Your task to perform on an android device: See recent photos Image 0: 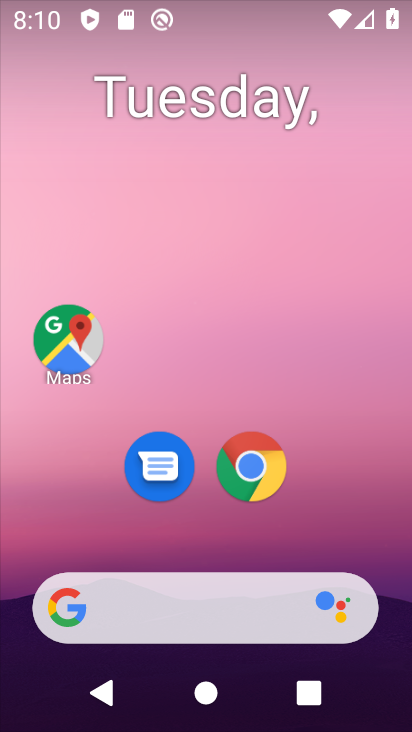
Step 0: drag from (216, 512) to (243, 8)
Your task to perform on an android device: See recent photos Image 1: 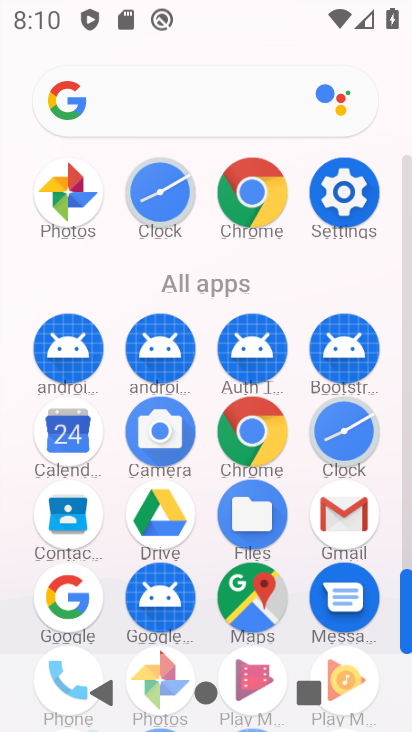
Step 1: drag from (200, 553) to (264, 121)
Your task to perform on an android device: See recent photos Image 2: 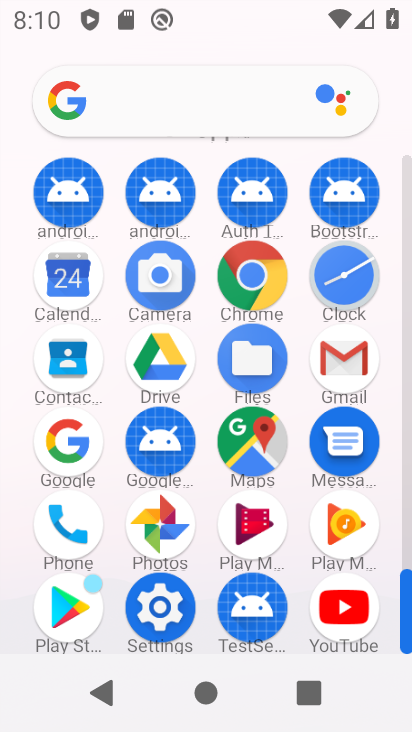
Step 2: click (165, 529)
Your task to perform on an android device: See recent photos Image 3: 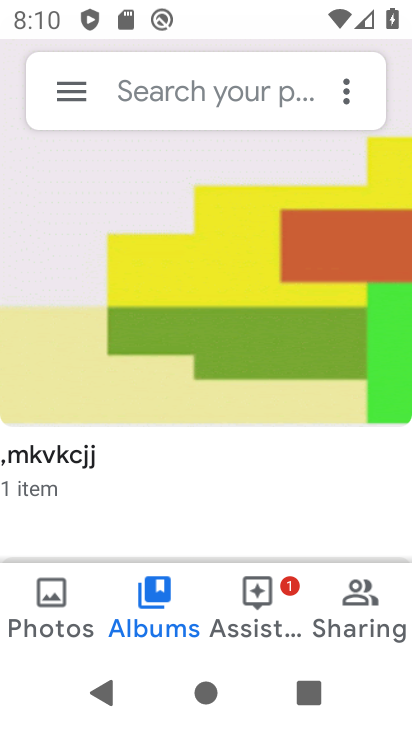
Step 3: click (62, 596)
Your task to perform on an android device: See recent photos Image 4: 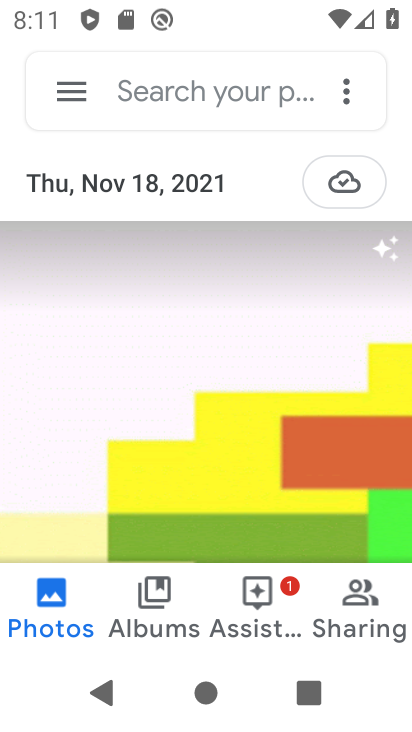
Step 4: task complete